Your task to perform on an android device: check storage Image 0: 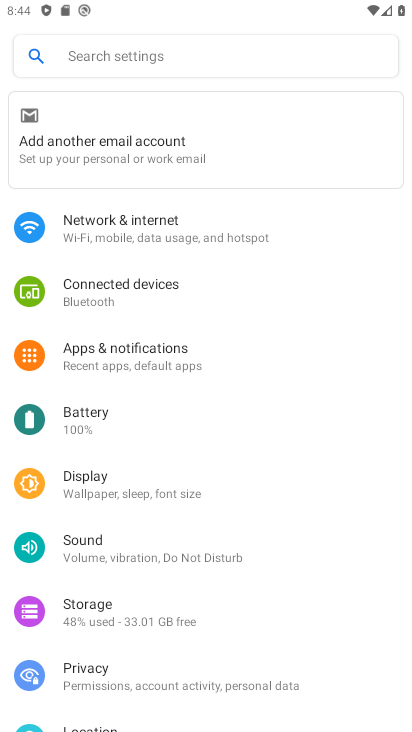
Step 0: click (121, 605)
Your task to perform on an android device: check storage Image 1: 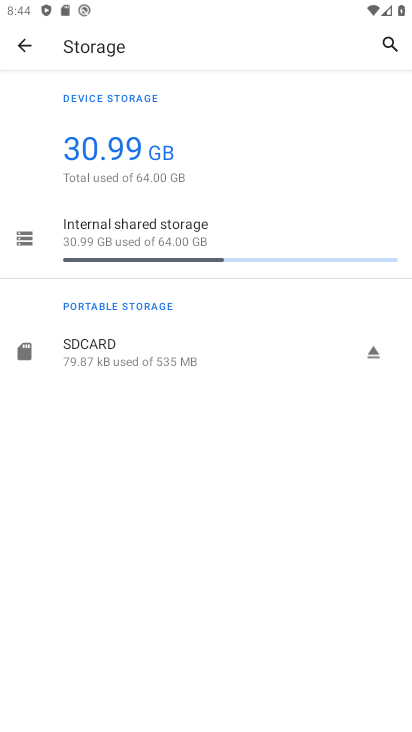
Step 1: task complete